Your task to perform on an android device: Open Android settings Image 0: 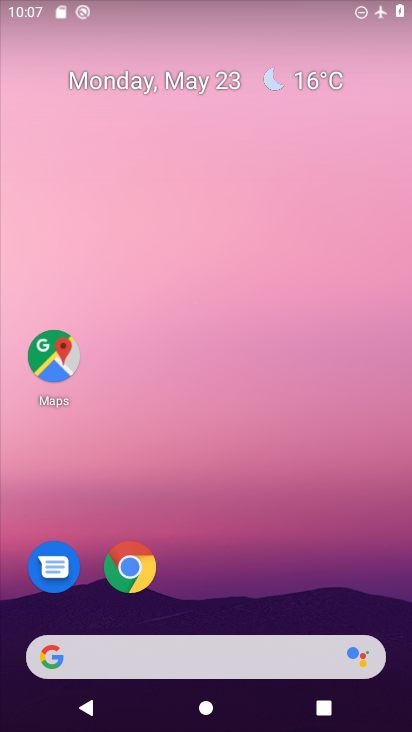
Step 0: click (268, 68)
Your task to perform on an android device: Open Android settings Image 1: 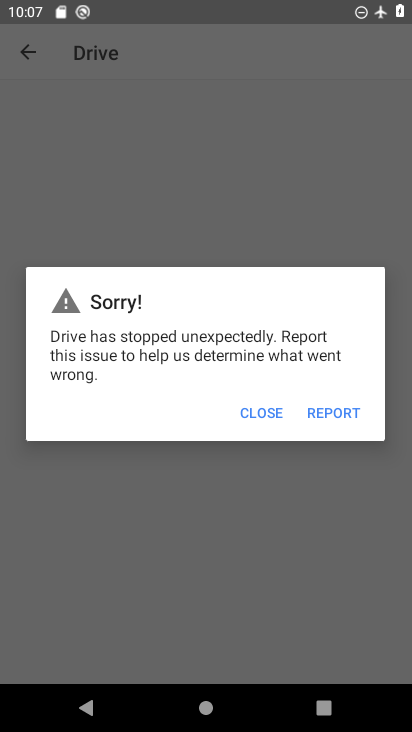
Step 1: press home button
Your task to perform on an android device: Open Android settings Image 2: 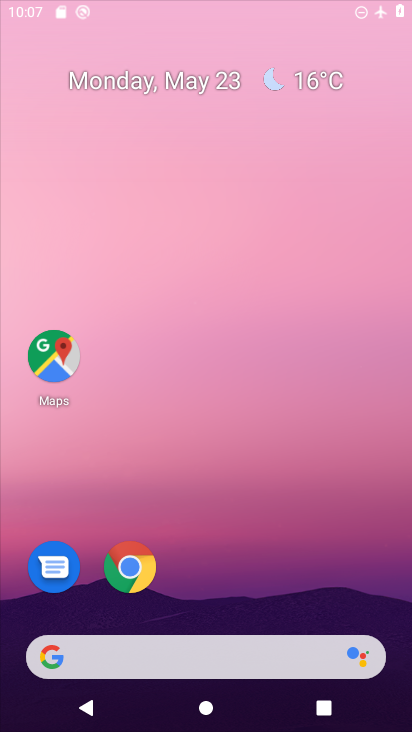
Step 2: drag from (233, 625) to (287, 110)
Your task to perform on an android device: Open Android settings Image 3: 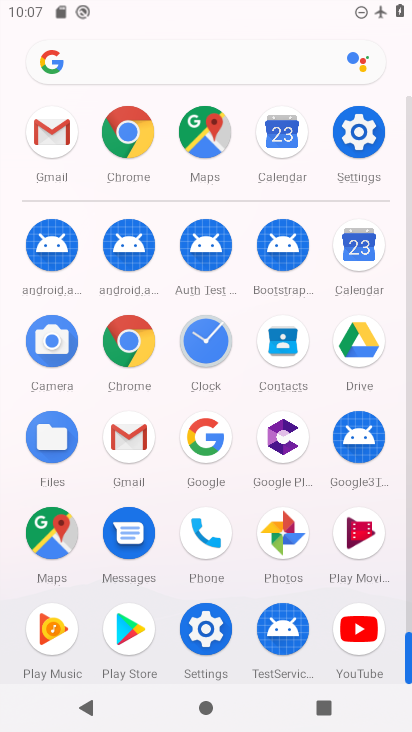
Step 3: click (197, 630)
Your task to perform on an android device: Open Android settings Image 4: 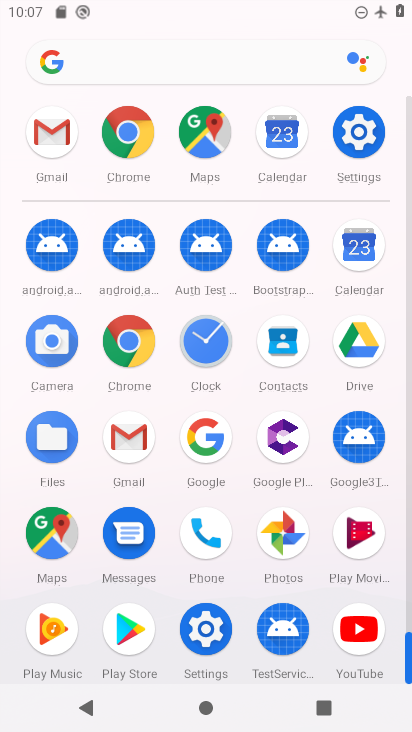
Step 4: click (197, 630)
Your task to perform on an android device: Open Android settings Image 5: 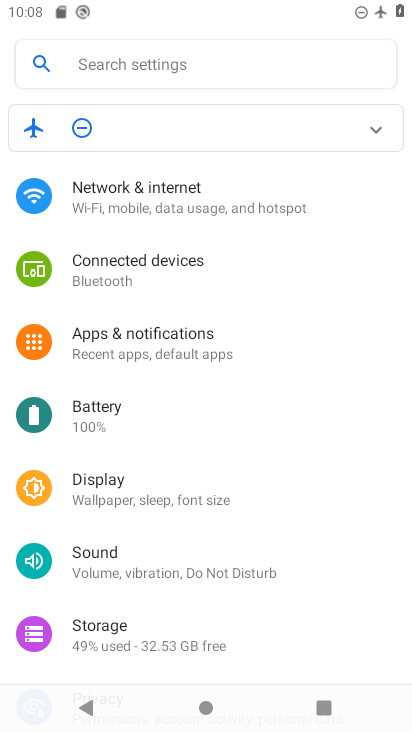
Step 5: drag from (169, 565) to (270, 237)
Your task to perform on an android device: Open Android settings Image 6: 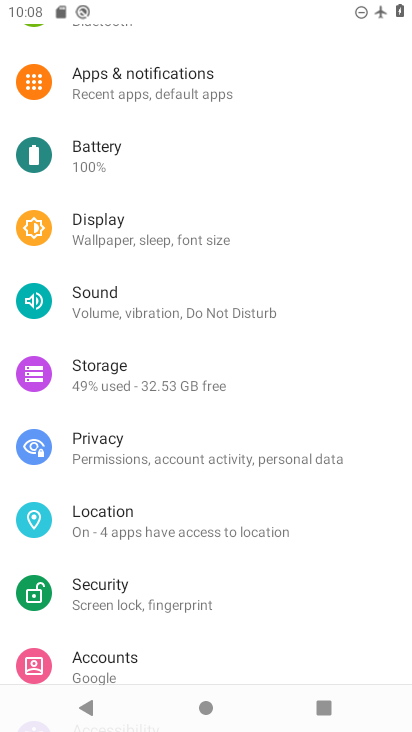
Step 6: drag from (259, 162) to (279, 731)
Your task to perform on an android device: Open Android settings Image 7: 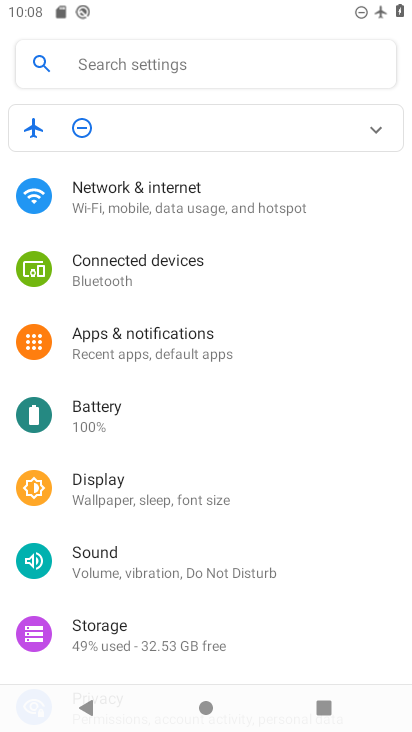
Step 7: drag from (167, 577) to (295, 11)
Your task to perform on an android device: Open Android settings Image 8: 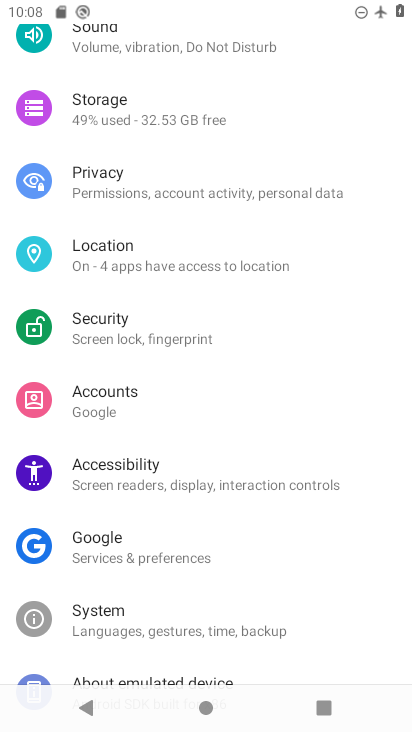
Step 8: drag from (175, 632) to (274, 27)
Your task to perform on an android device: Open Android settings Image 9: 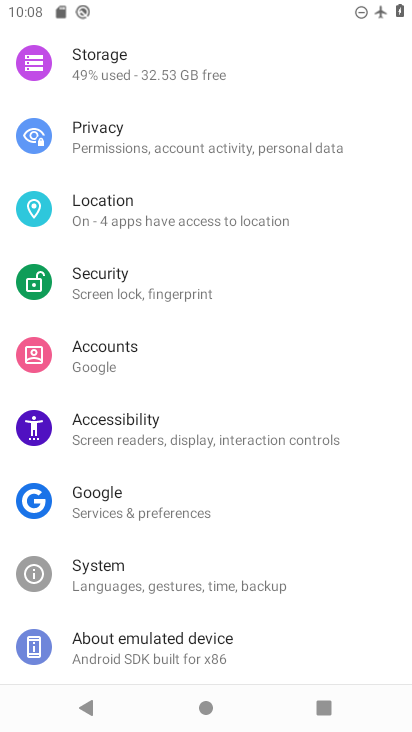
Step 9: click (164, 648)
Your task to perform on an android device: Open Android settings Image 10: 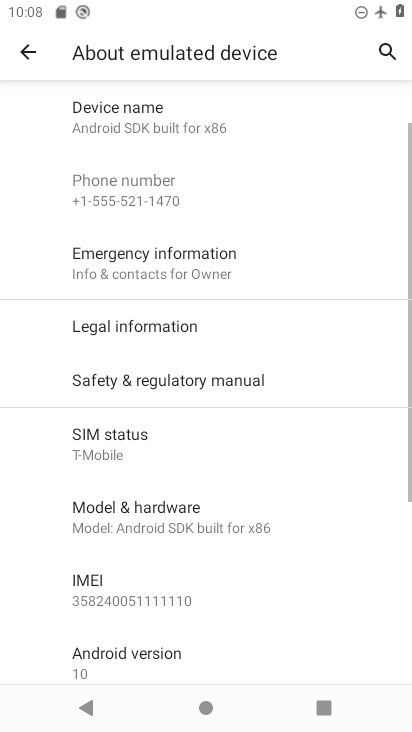
Step 10: drag from (199, 577) to (236, 167)
Your task to perform on an android device: Open Android settings Image 11: 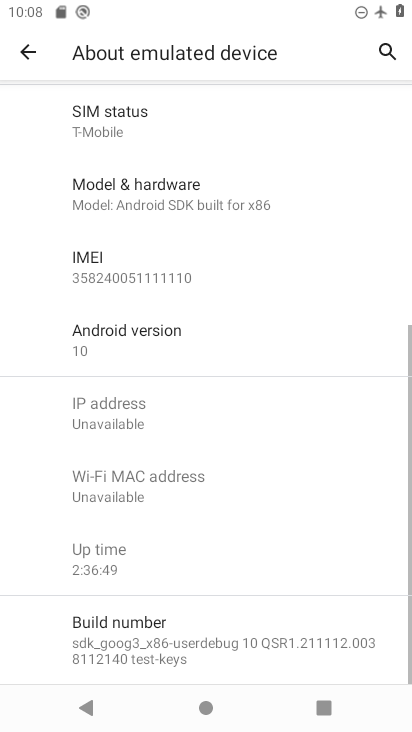
Step 11: click (141, 576)
Your task to perform on an android device: Open Android settings Image 12: 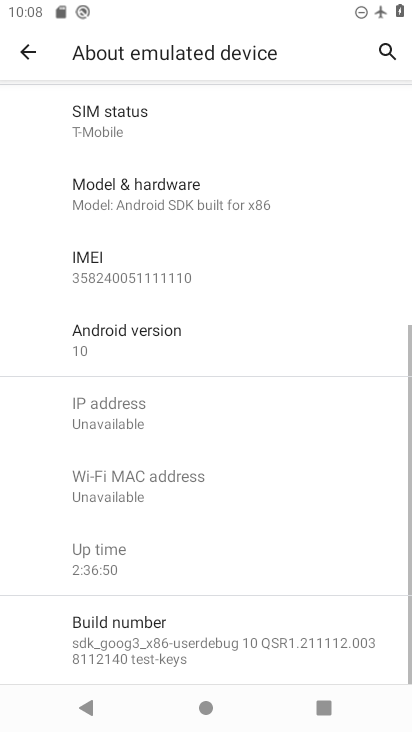
Step 12: task complete